Your task to perform on an android device: Search for sushi restaurants on Maps Image 0: 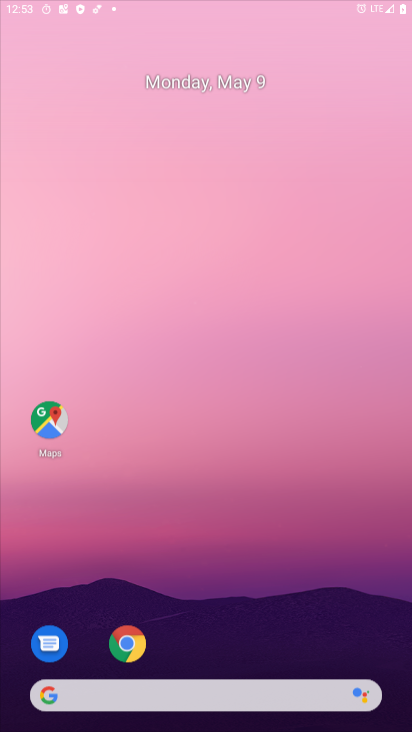
Step 0: drag from (355, 661) to (119, 144)
Your task to perform on an android device: Search for sushi restaurants on Maps Image 1: 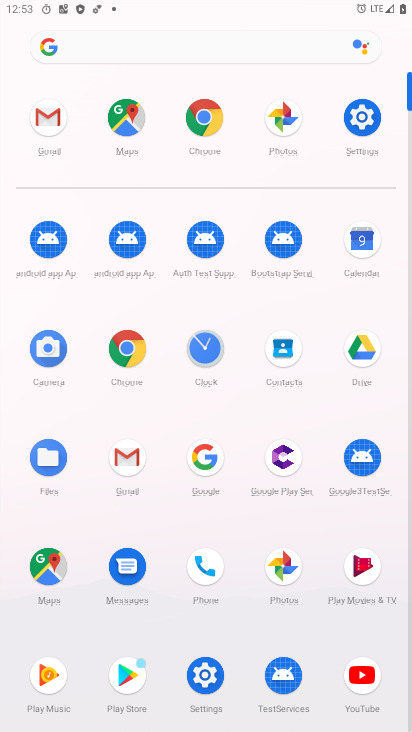
Step 1: click (128, 120)
Your task to perform on an android device: Search for sushi restaurants on Maps Image 2: 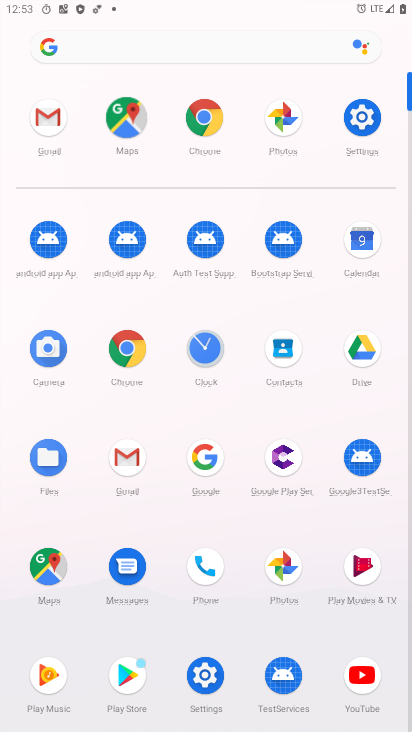
Step 2: click (126, 118)
Your task to perform on an android device: Search for sushi restaurants on Maps Image 3: 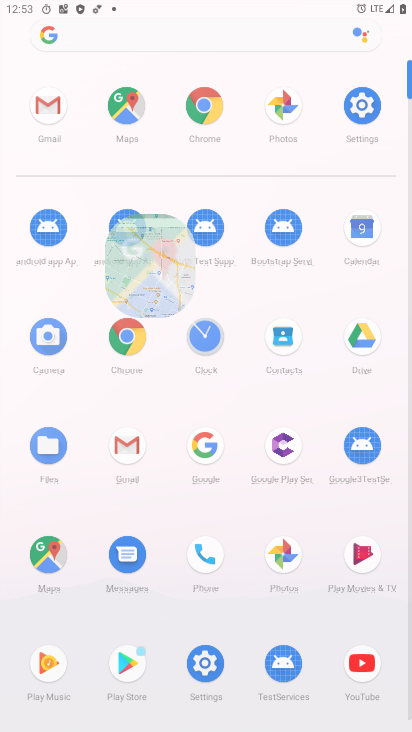
Step 3: click (126, 118)
Your task to perform on an android device: Search for sushi restaurants on Maps Image 4: 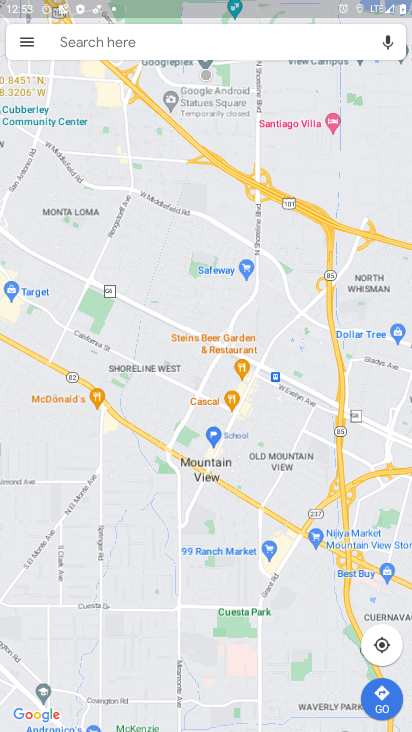
Step 4: drag from (126, 118) to (80, 44)
Your task to perform on an android device: Search for sushi restaurants on Maps Image 5: 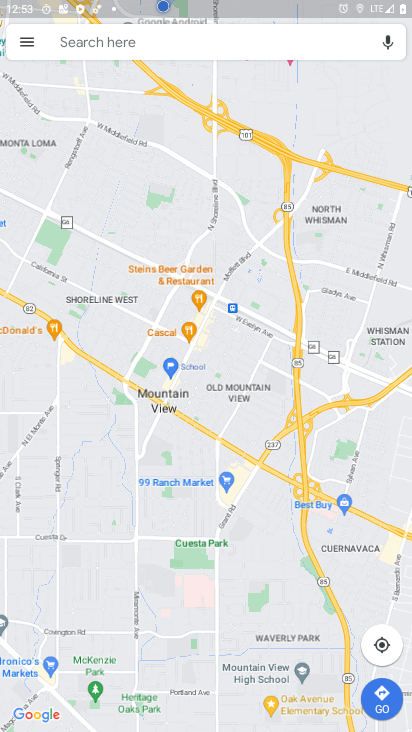
Step 5: click (90, 45)
Your task to perform on an android device: Search for sushi restaurants on Maps Image 6: 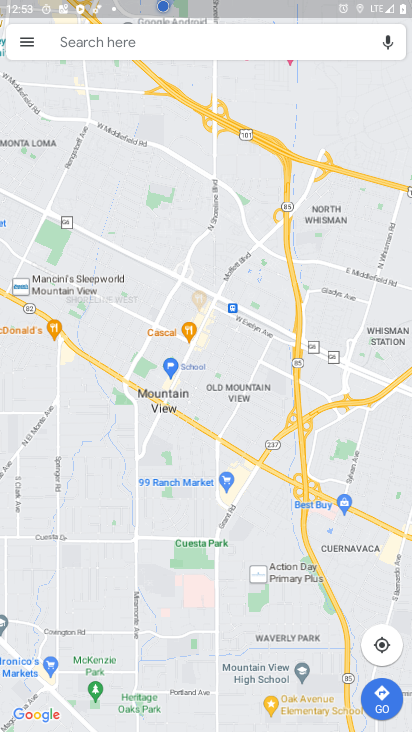
Step 6: click (83, 40)
Your task to perform on an android device: Search for sushi restaurants on Maps Image 7: 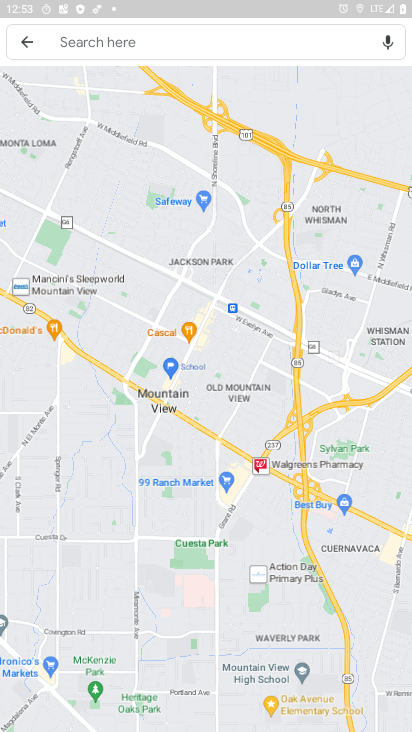
Step 7: click (83, 40)
Your task to perform on an android device: Search for sushi restaurants on Maps Image 8: 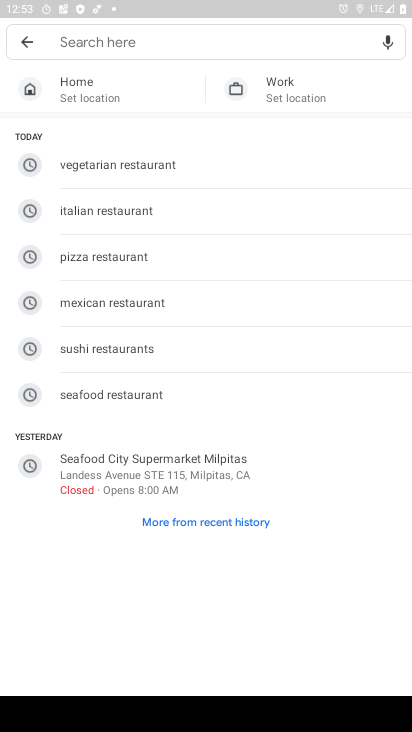
Step 8: click (136, 357)
Your task to perform on an android device: Search for sushi restaurants on Maps Image 9: 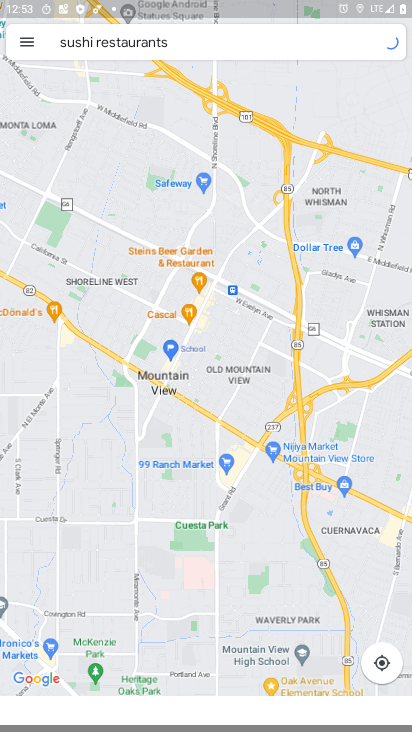
Step 9: click (137, 356)
Your task to perform on an android device: Search for sushi restaurants on Maps Image 10: 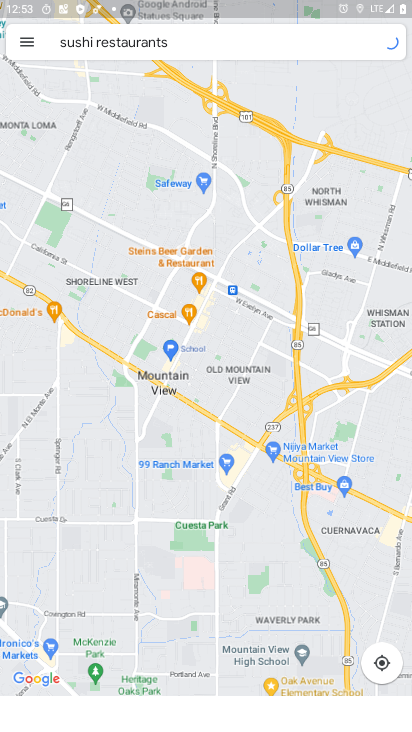
Step 10: click (137, 356)
Your task to perform on an android device: Search for sushi restaurants on Maps Image 11: 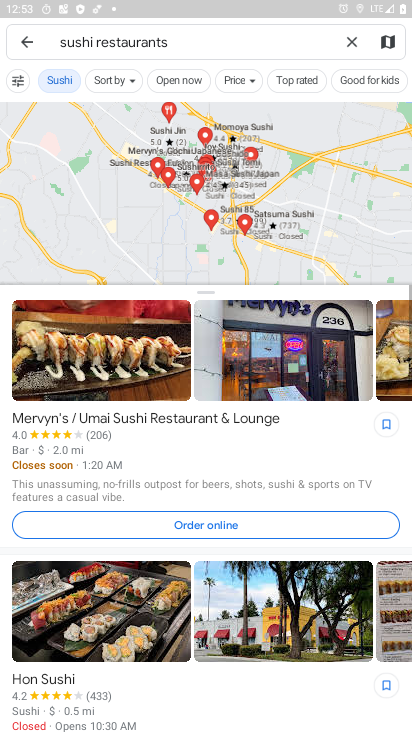
Step 11: task complete